Your task to perform on an android device: see sites visited before in the chrome app Image 0: 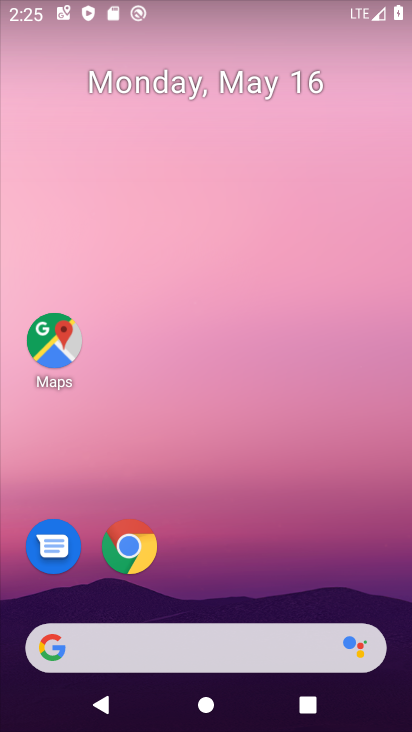
Step 0: drag from (268, 647) to (307, 88)
Your task to perform on an android device: see sites visited before in the chrome app Image 1: 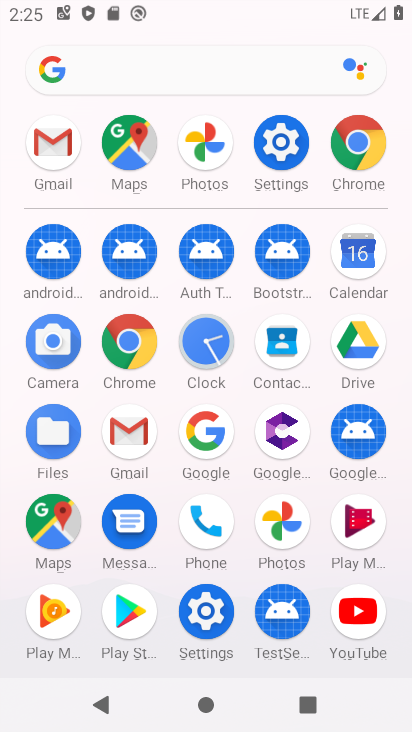
Step 1: click (134, 354)
Your task to perform on an android device: see sites visited before in the chrome app Image 2: 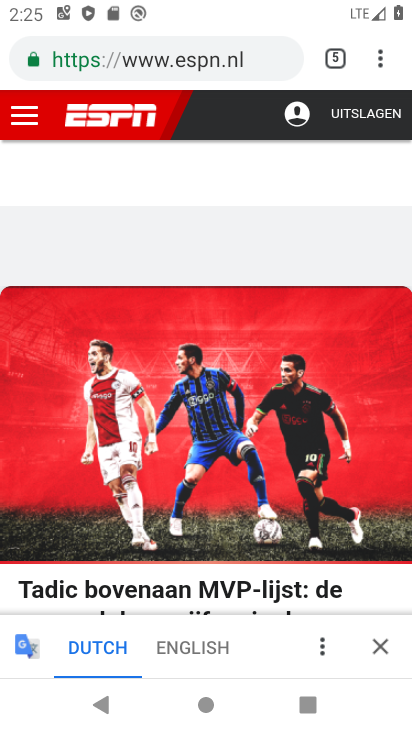
Step 2: click (379, 53)
Your task to perform on an android device: see sites visited before in the chrome app Image 3: 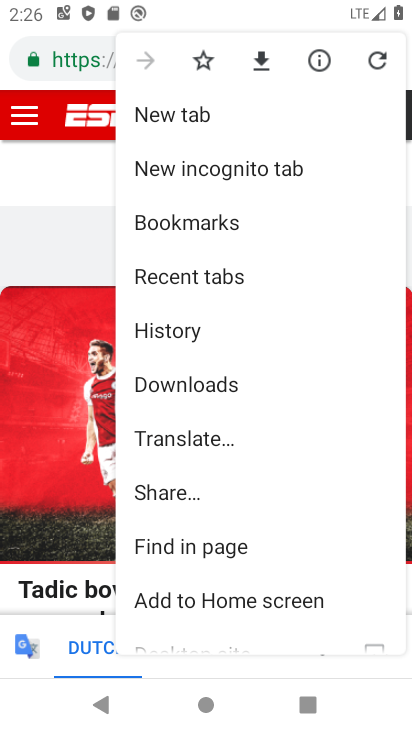
Step 3: drag from (208, 457) to (223, 258)
Your task to perform on an android device: see sites visited before in the chrome app Image 4: 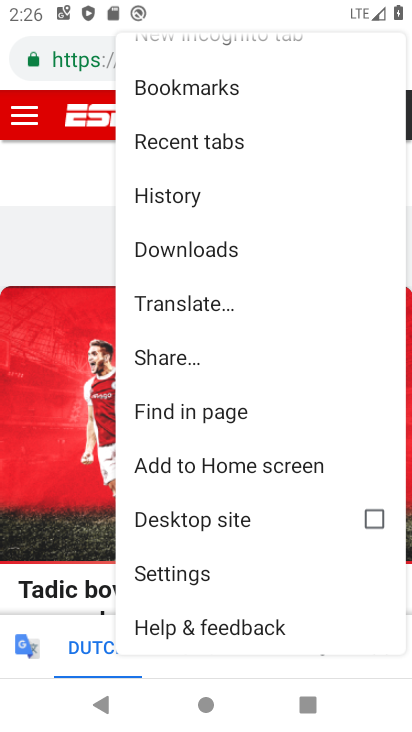
Step 4: click (204, 574)
Your task to perform on an android device: see sites visited before in the chrome app Image 5: 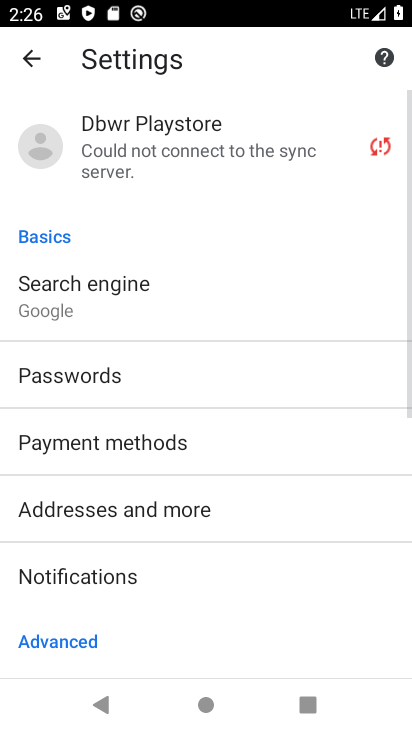
Step 5: drag from (158, 555) to (183, 329)
Your task to perform on an android device: see sites visited before in the chrome app Image 6: 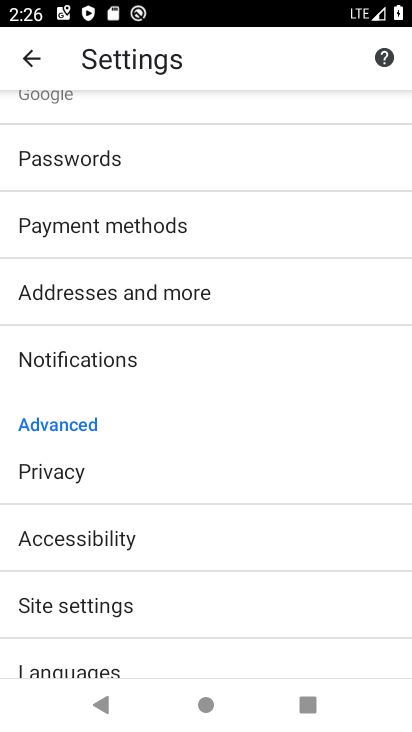
Step 6: click (108, 598)
Your task to perform on an android device: see sites visited before in the chrome app Image 7: 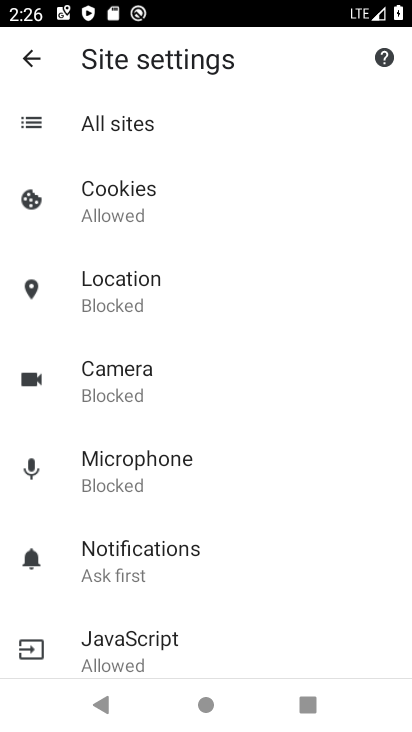
Step 7: click (138, 129)
Your task to perform on an android device: see sites visited before in the chrome app Image 8: 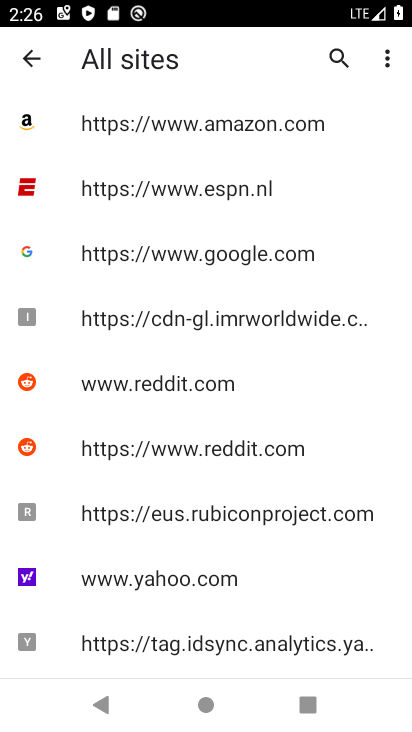
Step 8: task complete